Your task to perform on an android device: open chrome and create a bookmark for the current page Image 0: 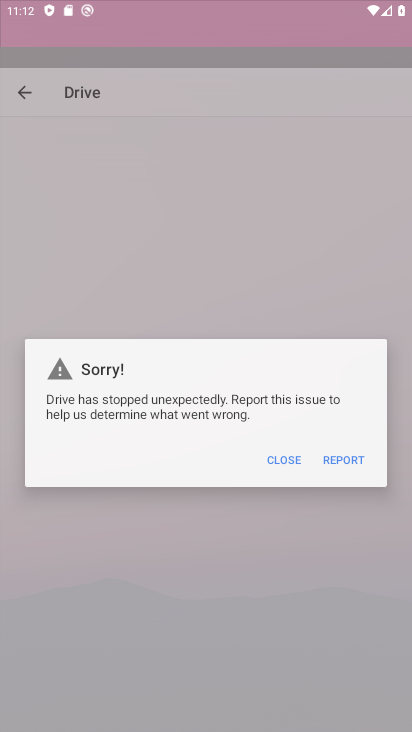
Step 0: drag from (20, 44) to (232, 84)
Your task to perform on an android device: open chrome and create a bookmark for the current page Image 1: 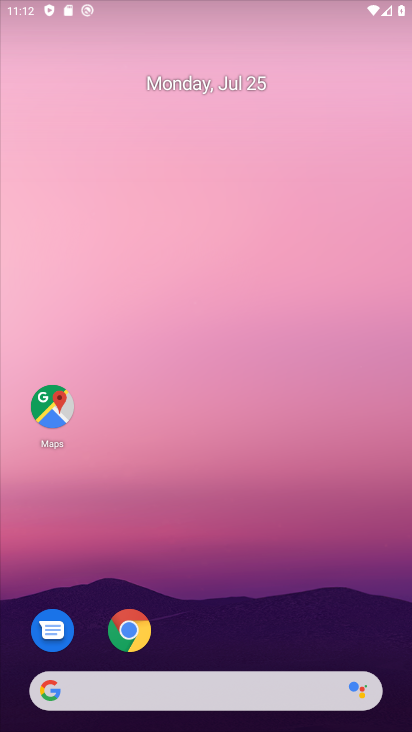
Step 1: drag from (254, 595) to (254, 205)
Your task to perform on an android device: open chrome and create a bookmark for the current page Image 2: 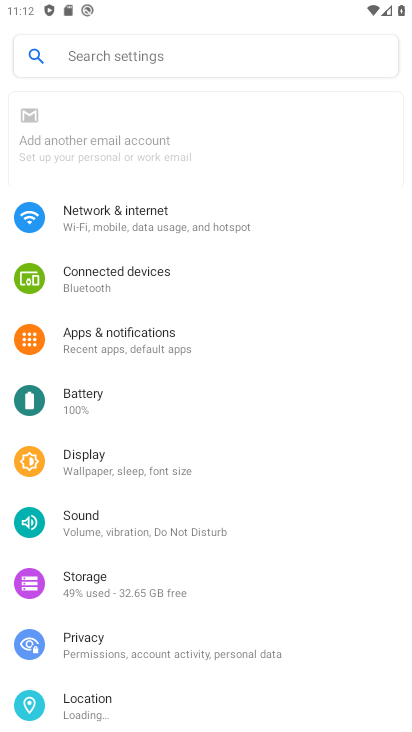
Step 2: drag from (248, 508) to (203, 167)
Your task to perform on an android device: open chrome and create a bookmark for the current page Image 3: 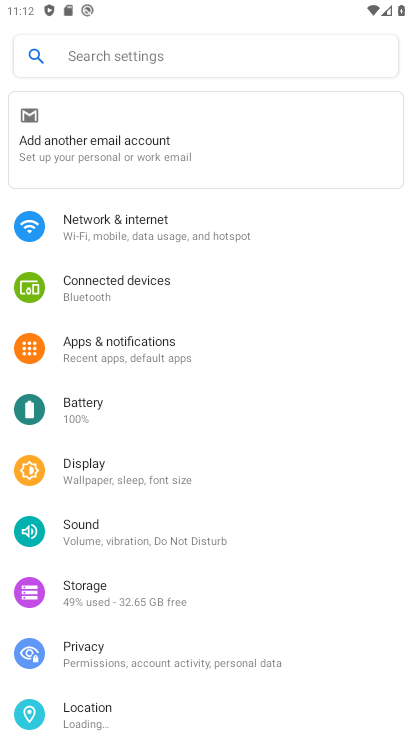
Step 3: press back button
Your task to perform on an android device: open chrome and create a bookmark for the current page Image 4: 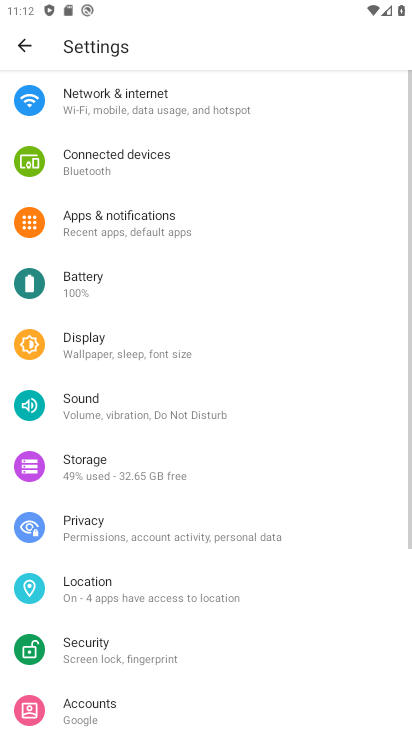
Step 4: click (24, 44)
Your task to perform on an android device: open chrome and create a bookmark for the current page Image 5: 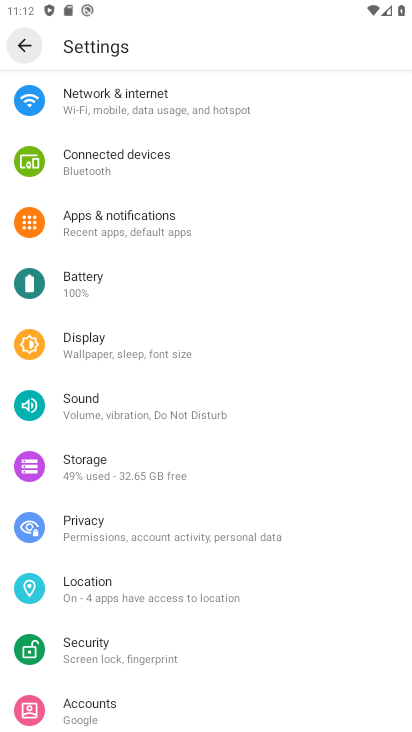
Step 5: click (23, 43)
Your task to perform on an android device: open chrome and create a bookmark for the current page Image 6: 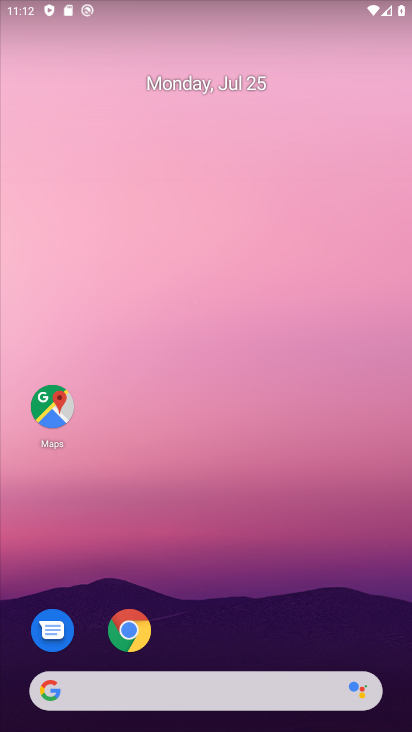
Step 6: drag from (289, 651) to (286, 152)
Your task to perform on an android device: open chrome and create a bookmark for the current page Image 7: 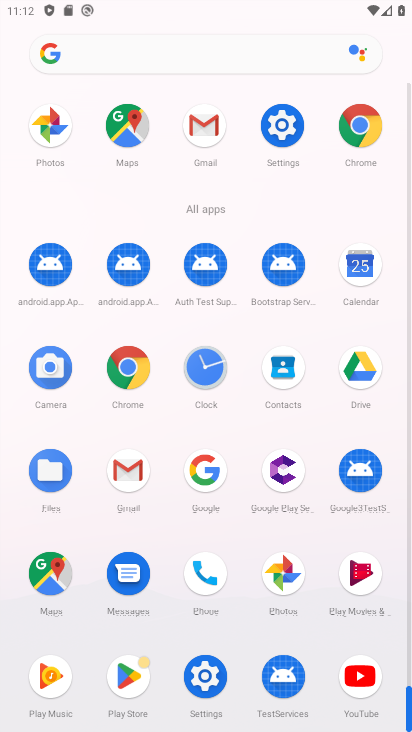
Step 7: click (341, 123)
Your task to perform on an android device: open chrome and create a bookmark for the current page Image 8: 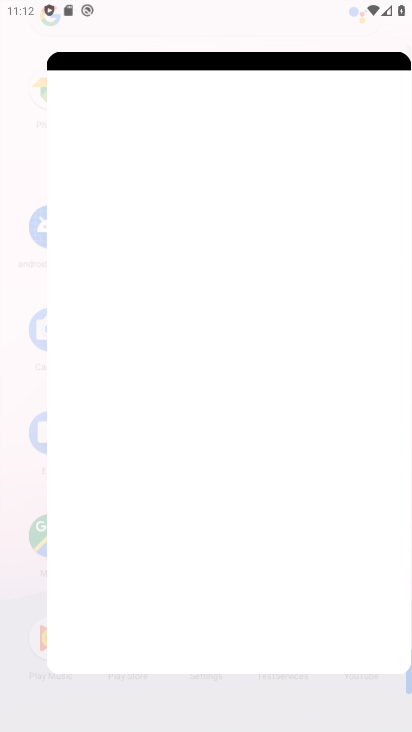
Step 8: click (346, 123)
Your task to perform on an android device: open chrome and create a bookmark for the current page Image 9: 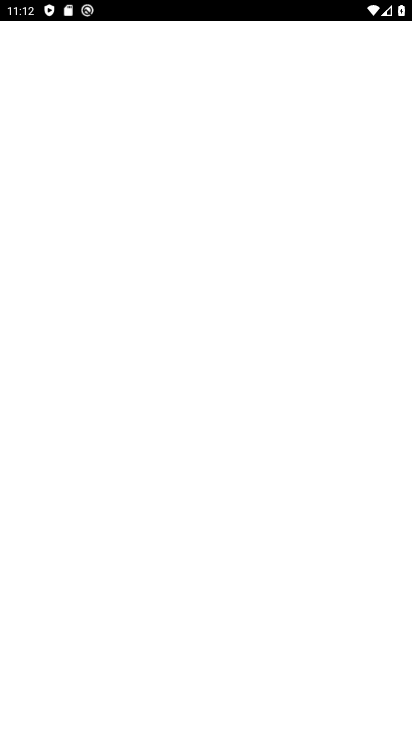
Step 9: click (347, 123)
Your task to perform on an android device: open chrome and create a bookmark for the current page Image 10: 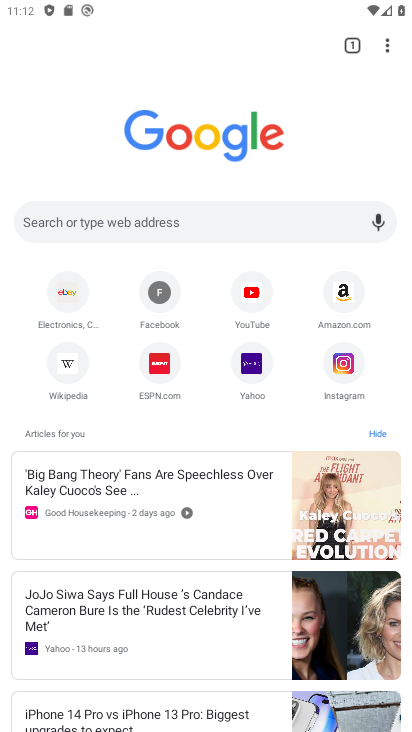
Step 10: drag from (388, 46) to (249, 46)
Your task to perform on an android device: open chrome and create a bookmark for the current page Image 11: 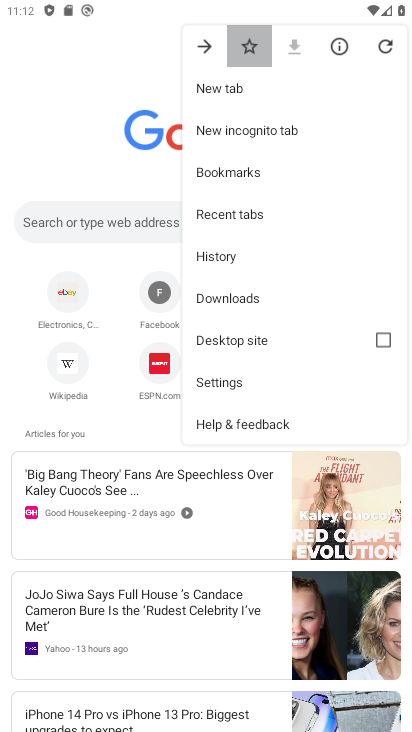
Step 11: click (249, 46)
Your task to perform on an android device: open chrome and create a bookmark for the current page Image 12: 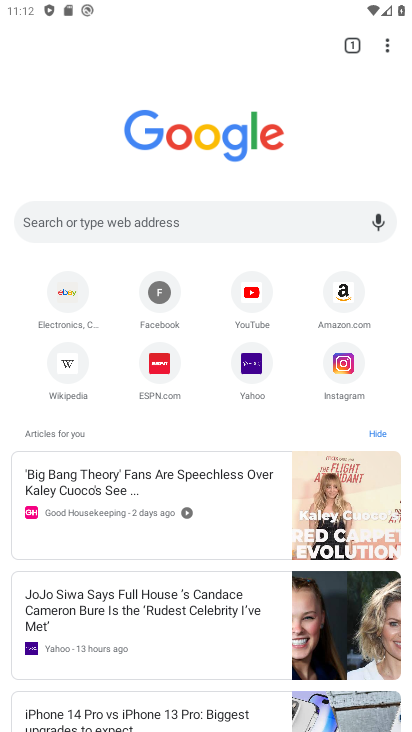
Step 12: task complete